Your task to perform on an android device: Open the web browser Image 0: 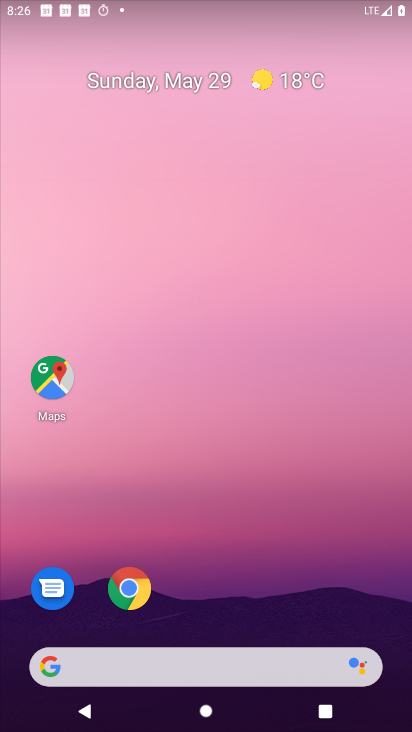
Step 0: drag from (194, 589) to (215, 188)
Your task to perform on an android device: Open the web browser Image 1: 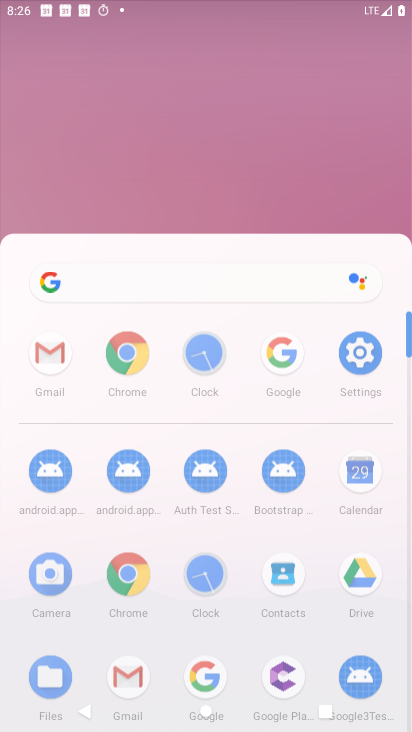
Step 1: click (215, 184)
Your task to perform on an android device: Open the web browser Image 2: 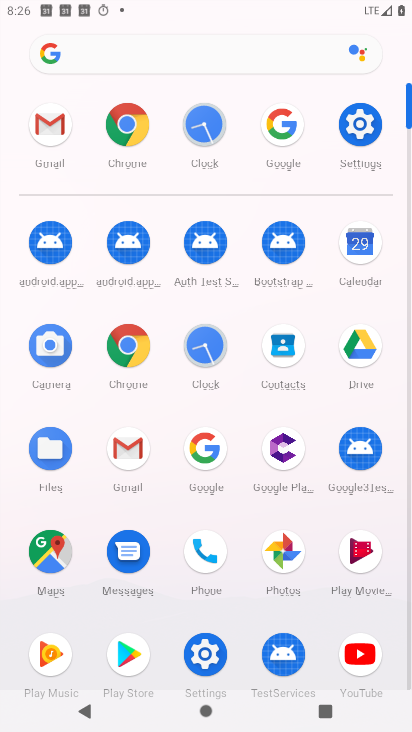
Step 2: click (285, 121)
Your task to perform on an android device: Open the web browser Image 3: 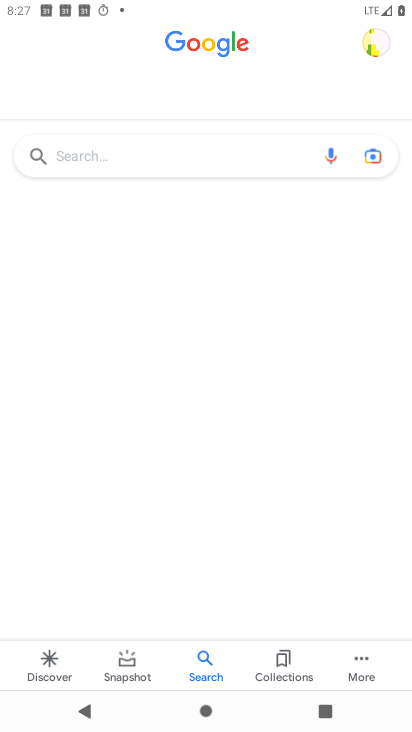
Step 3: task complete